Your task to perform on an android device: toggle show notifications on the lock screen Image 0: 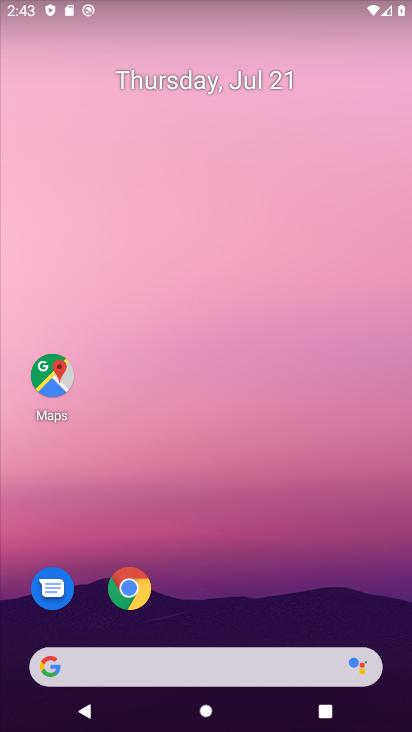
Step 0: drag from (254, 614) to (183, 174)
Your task to perform on an android device: toggle show notifications on the lock screen Image 1: 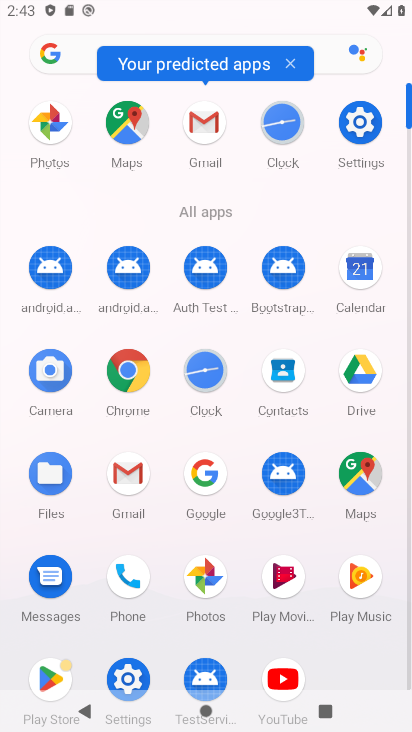
Step 1: click (342, 147)
Your task to perform on an android device: toggle show notifications on the lock screen Image 2: 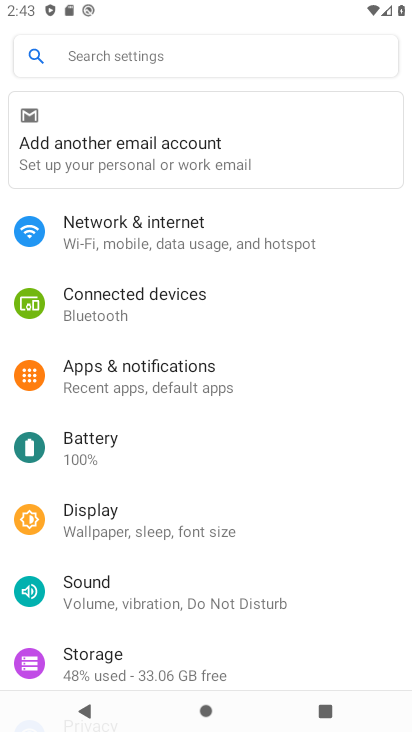
Step 2: click (215, 365)
Your task to perform on an android device: toggle show notifications on the lock screen Image 3: 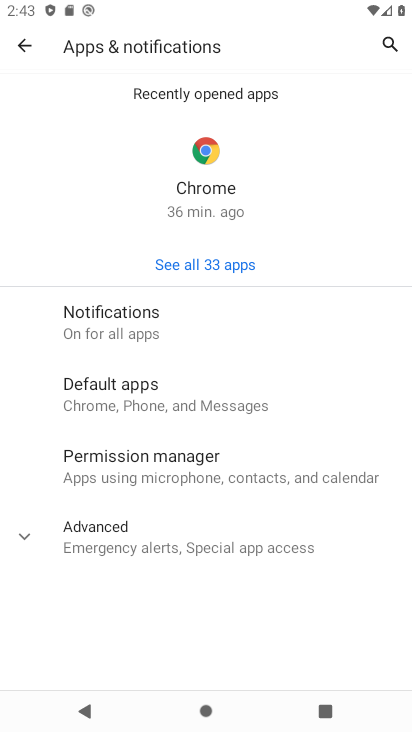
Step 3: click (170, 336)
Your task to perform on an android device: toggle show notifications on the lock screen Image 4: 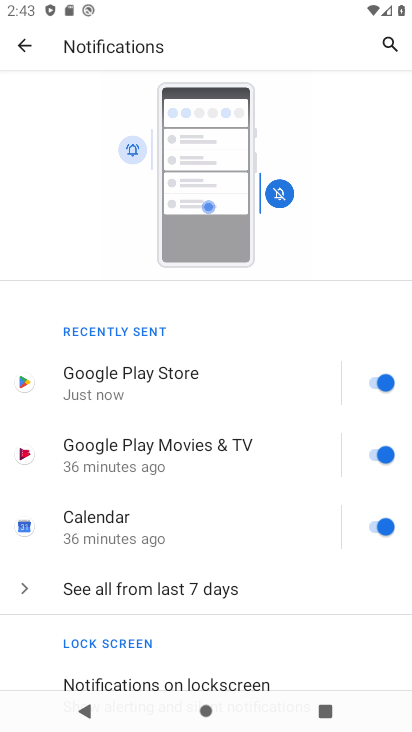
Step 4: drag from (253, 623) to (222, 267)
Your task to perform on an android device: toggle show notifications on the lock screen Image 5: 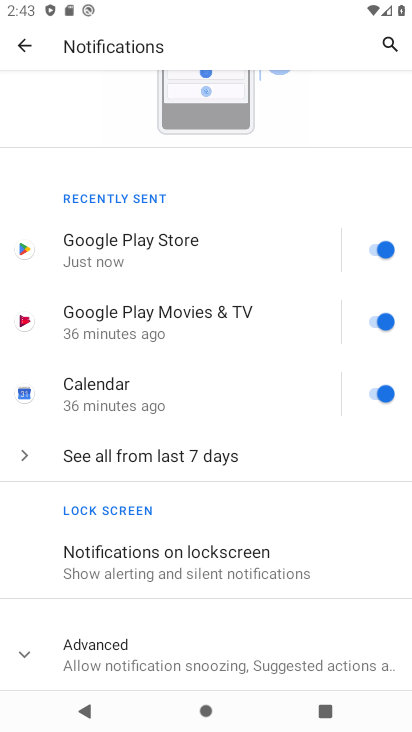
Step 5: click (292, 560)
Your task to perform on an android device: toggle show notifications on the lock screen Image 6: 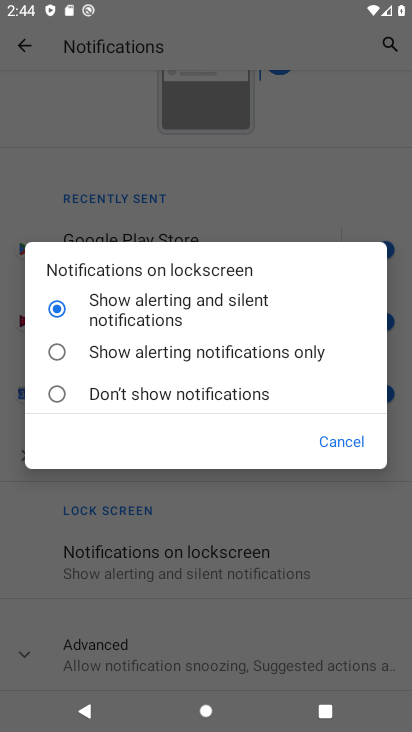
Step 6: click (244, 361)
Your task to perform on an android device: toggle show notifications on the lock screen Image 7: 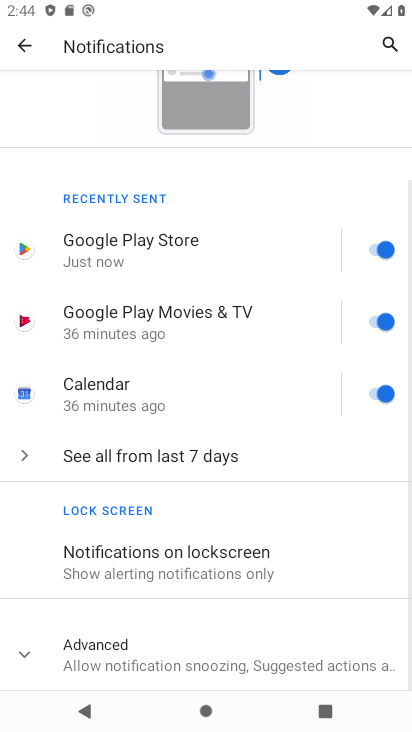
Step 7: task complete